Your task to perform on an android device: turn on showing notifications on the lock screen Image 0: 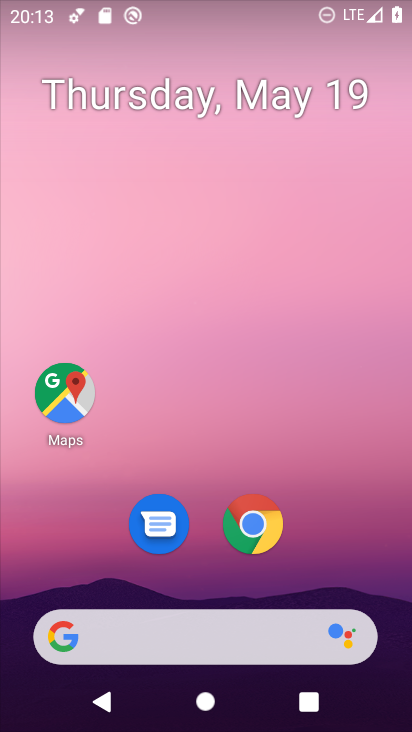
Step 0: drag from (245, 446) to (294, 38)
Your task to perform on an android device: turn on showing notifications on the lock screen Image 1: 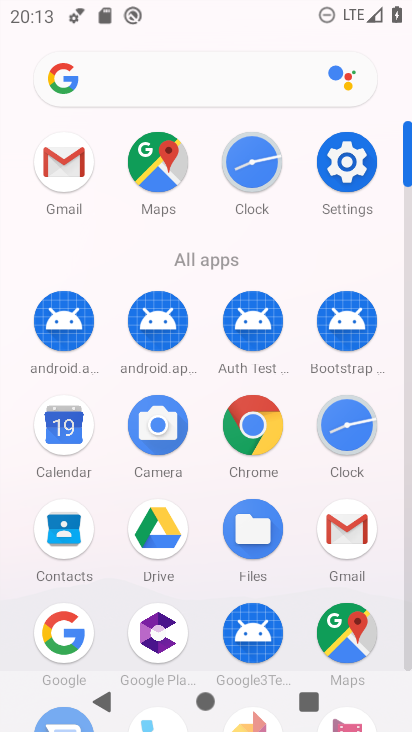
Step 1: click (335, 154)
Your task to perform on an android device: turn on showing notifications on the lock screen Image 2: 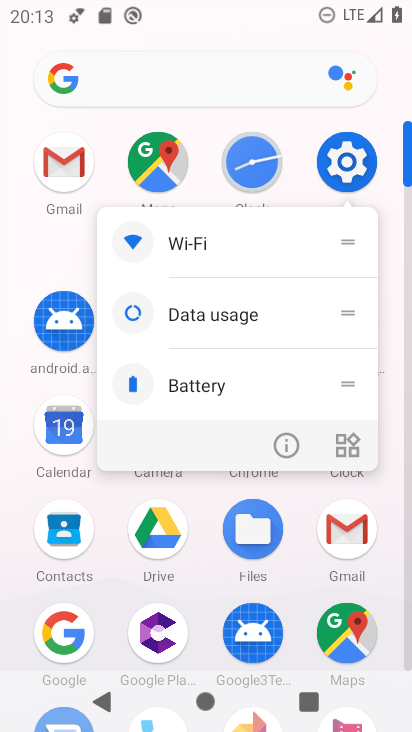
Step 2: click (344, 148)
Your task to perform on an android device: turn on showing notifications on the lock screen Image 3: 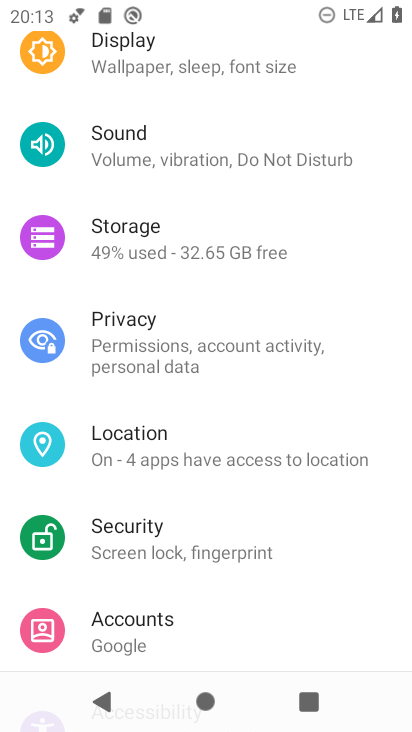
Step 3: drag from (285, 203) to (282, 612)
Your task to perform on an android device: turn on showing notifications on the lock screen Image 4: 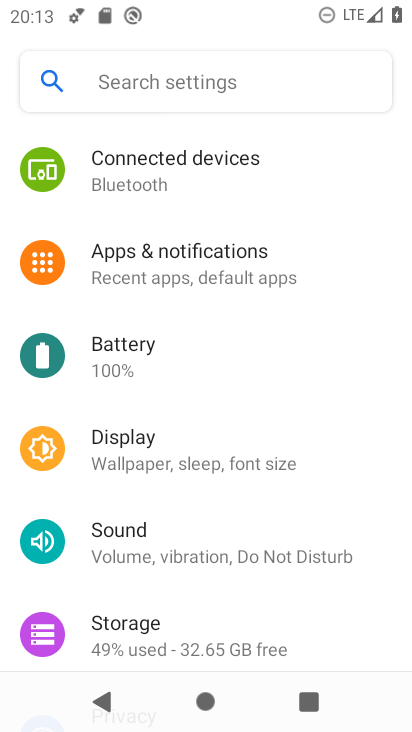
Step 4: click (230, 266)
Your task to perform on an android device: turn on showing notifications on the lock screen Image 5: 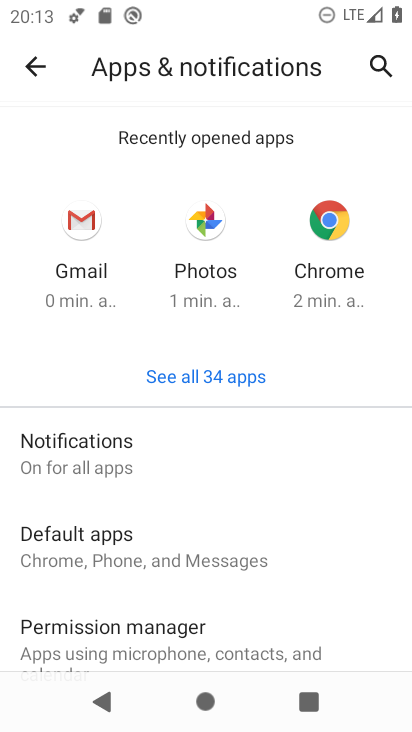
Step 5: click (110, 460)
Your task to perform on an android device: turn on showing notifications on the lock screen Image 6: 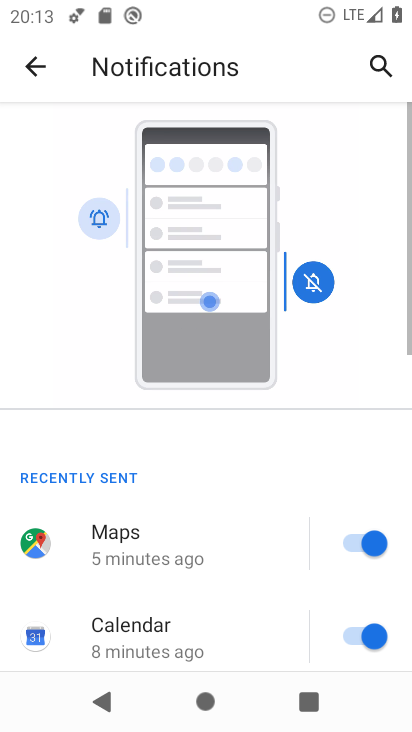
Step 6: task complete